Your task to perform on an android device: Open Google Chrome and open the bookmarks view Image 0: 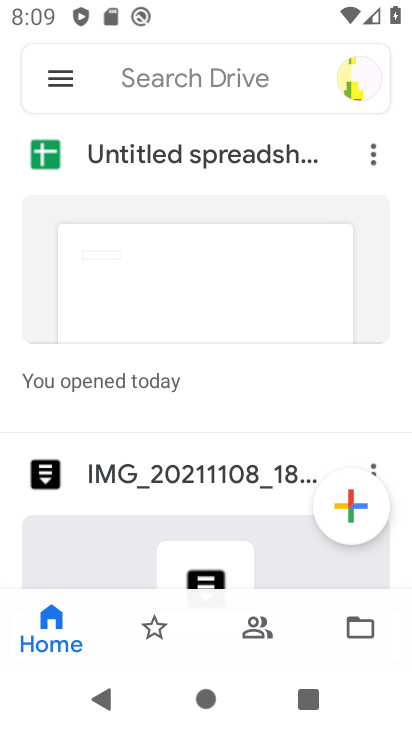
Step 0: press home button
Your task to perform on an android device: Open Google Chrome and open the bookmarks view Image 1: 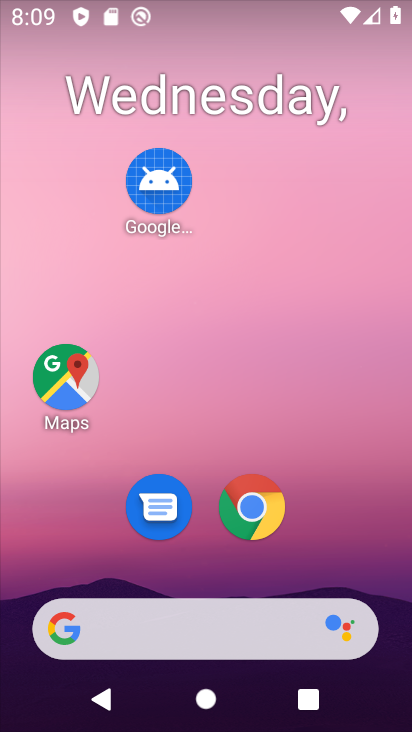
Step 1: click (261, 531)
Your task to perform on an android device: Open Google Chrome and open the bookmarks view Image 2: 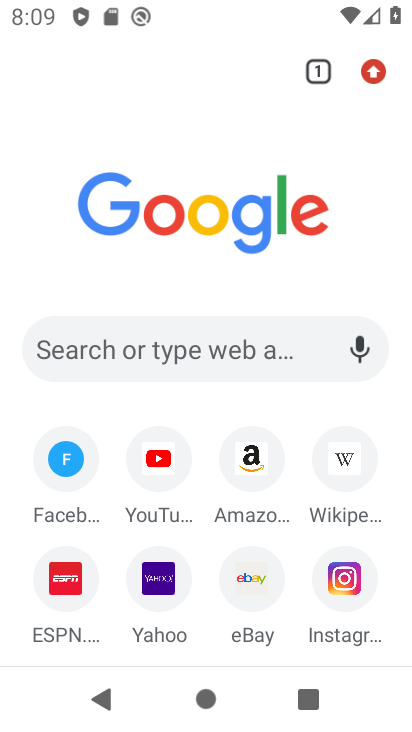
Step 2: task complete